Your task to perform on an android device: Turn on the flashlight Image 0: 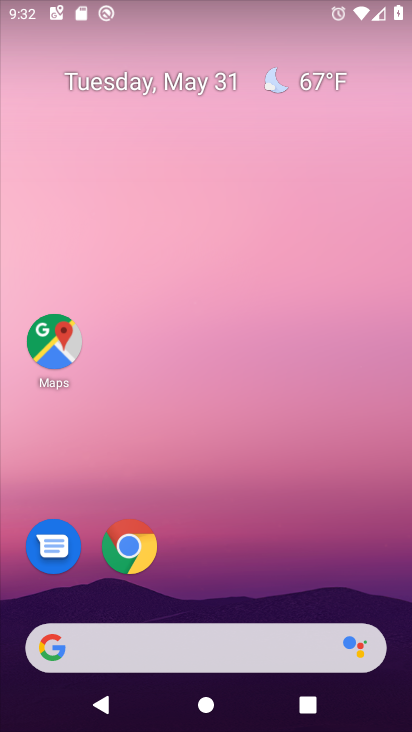
Step 0: drag from (206, 600) to (224, 171)
Your task to perform on an android device: Turn on the flashlight Image 1: 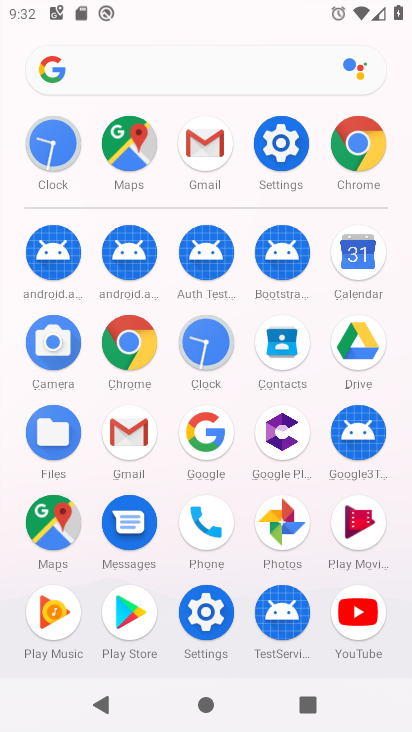
Step 1: click (267, 145)
Your task to perform on an android device: Turn on the flashlight Image 2: 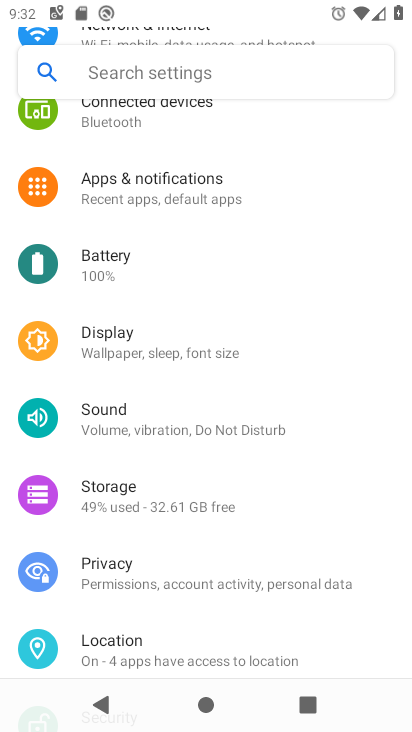
Step 2: click (206, 86)
Your task to perform on an android device: Turn on the flashlight Image 3: 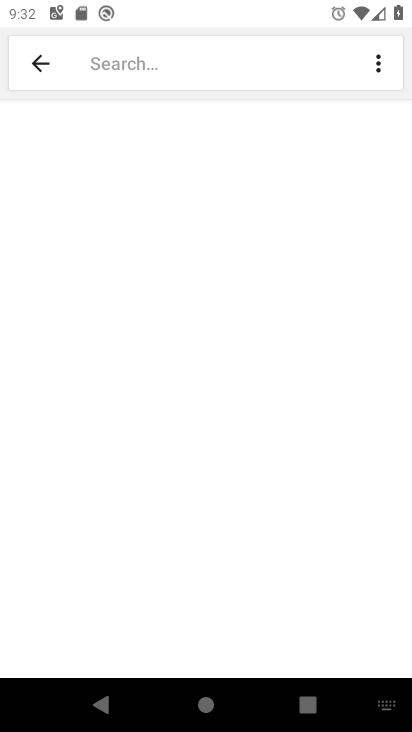
Step 3: type "flashlight"
Your task to perform on an android device: Turn on the flashlight Image 4: 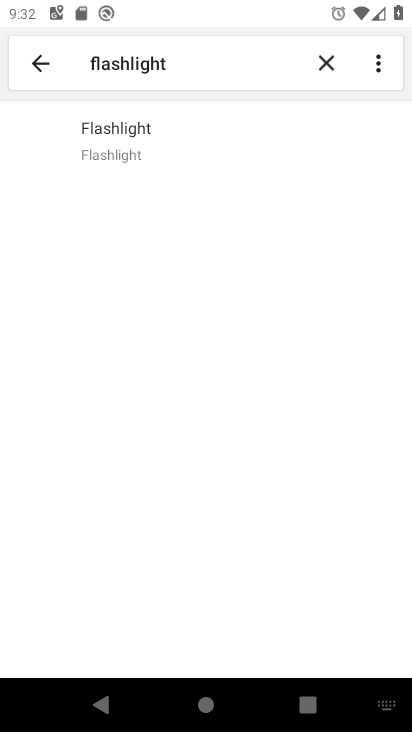
Step 4: click (186, 144)
Your task to perform on an android device: Turn on the flashlight Image 5: 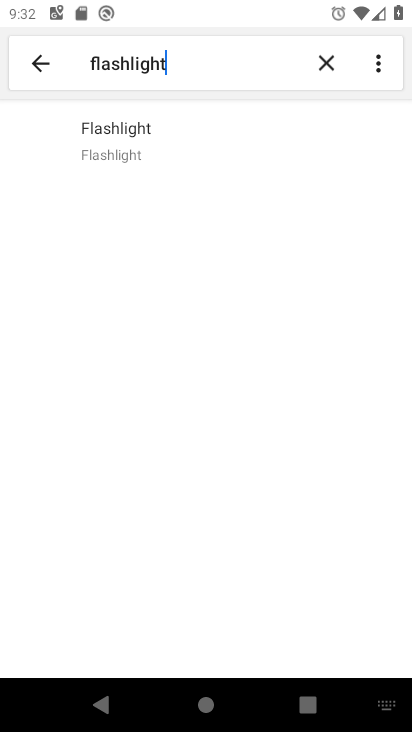
Step 5: click (126, 88)
Your task to perform on an android device: Turn on the flashlight Image 6: 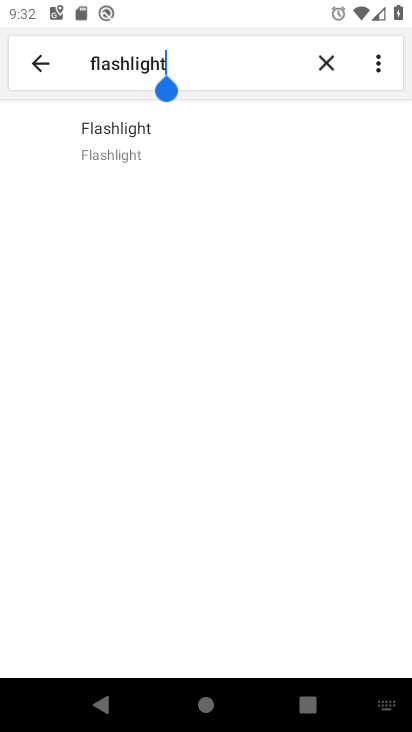
Step 6: click (133, 147)
Your task to perform on an android device: Turn on the flashlight Image 7: 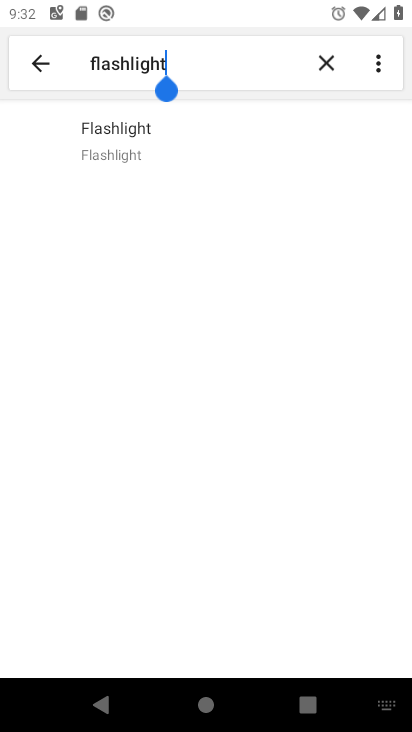
Step 7: task complete